Your task to perform on an android device: turn off smart reply in the gmail app Image 0: 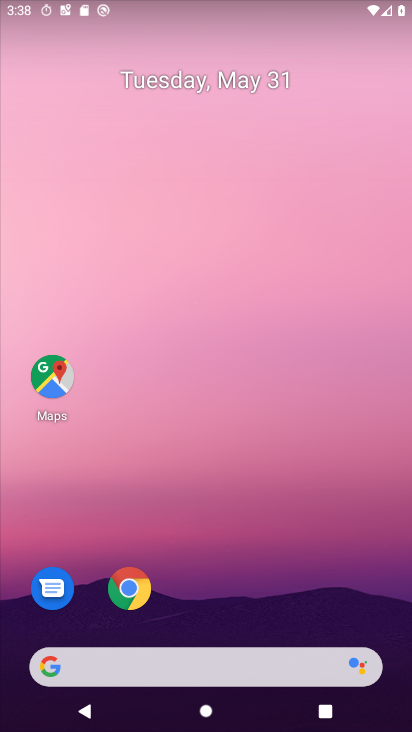
Step 0: drag from (195, 605) to (195, 172)
Your task to perform on an android device: turn off smart reply in the gmail app Image 1: 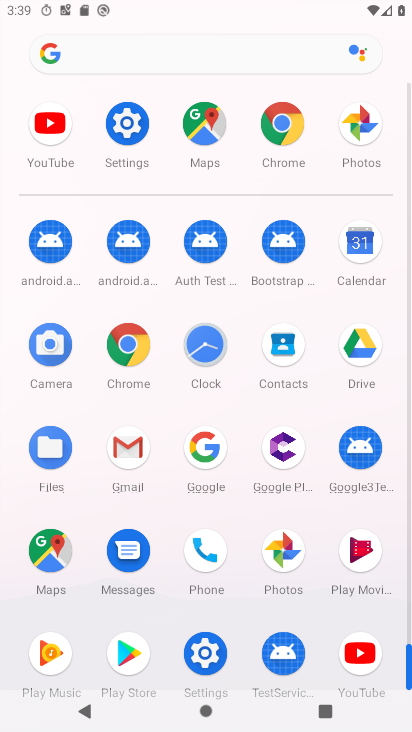
Step 1: click (136, 463)
Your task to perform on an android device: turn off smart reply in the gmail app Image 2: 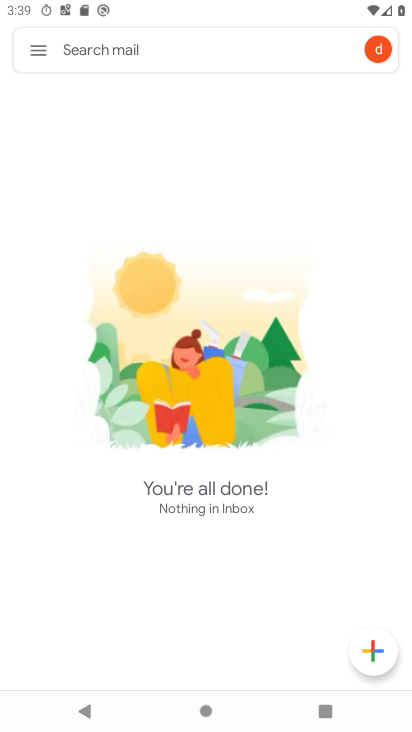
Step 2: click (45, 53)
Your task to perform on an android device: turn off smart reply in the gmail app Image 3: 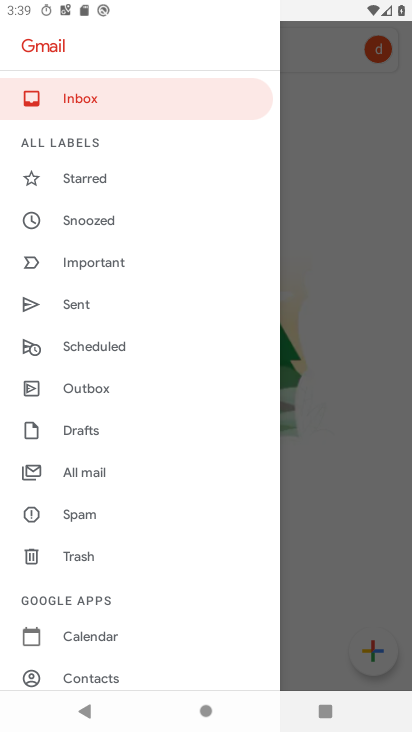
Step 3: drag from (91, 549) to (165, 231)
Your task to perform on an android device: turn off smart reply in the gmail app Image 4: 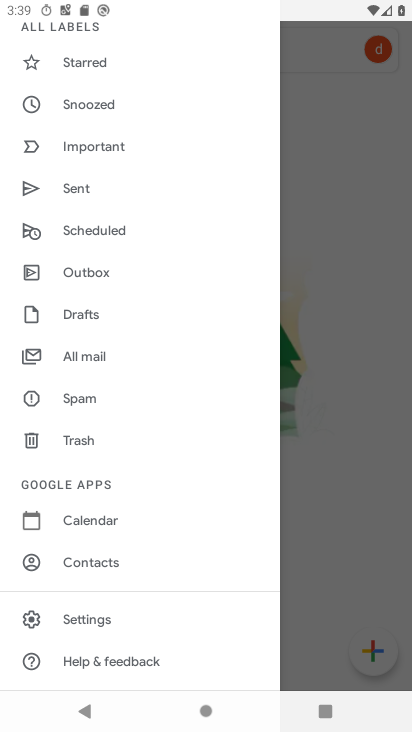
Step 4: click (84, 617)
Your task to perform on an android device: turn off smart reply in the gmail app Image 5: 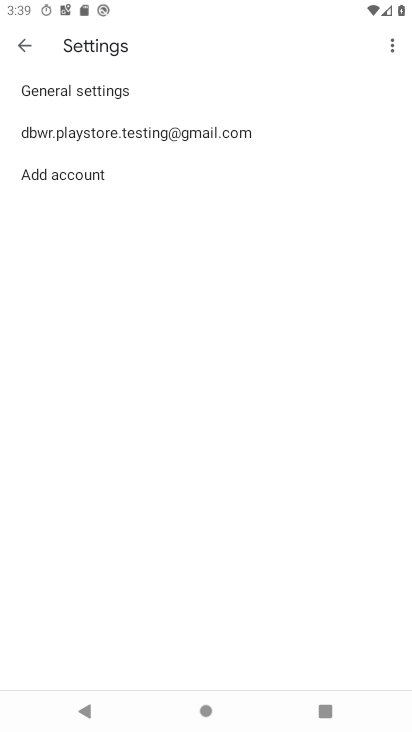
Step 5: click (127, 132)
Your task to perform on an android device: turn off smart reply in the gmail app Image 6: 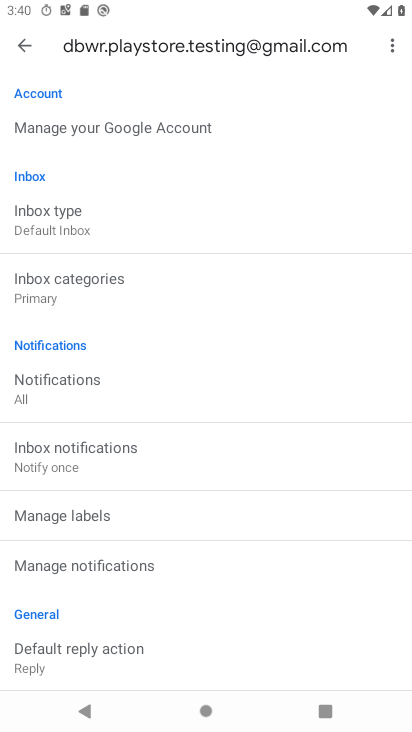
Step 6: drag from (125, 501) to (155, 203)
Your task to perform on an android device: turn off smart reply in the gmail app Image 7: 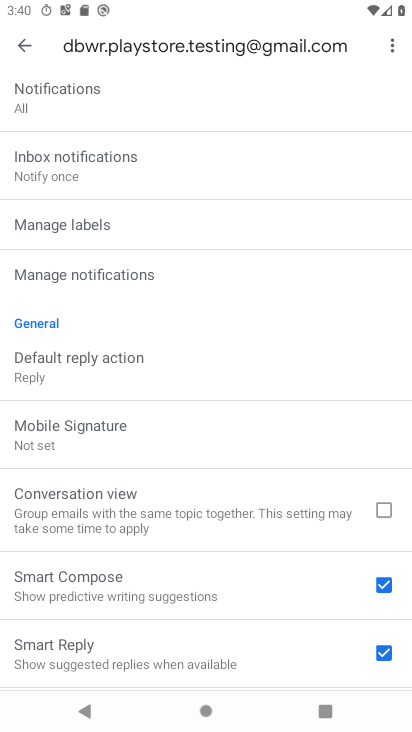
Step 7: drag from (153, 550) to (180, 361)
Your task to perform on an android device: turn off smart reply in the gmail app Image 8: 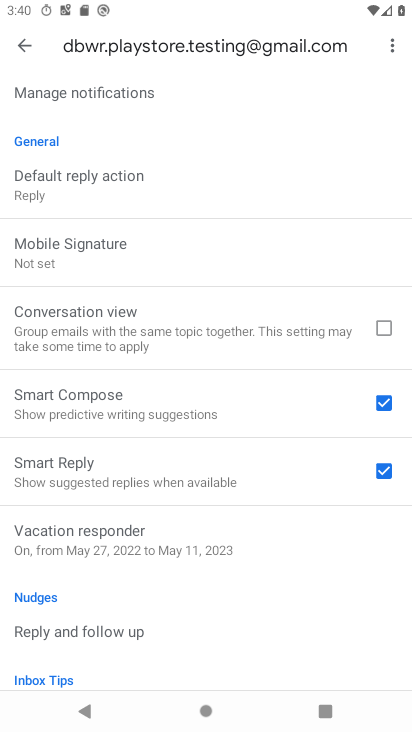
Step 8: click (387, 473)
Your task to perform on an android device: turn off smart reply in the gmail app Image 9: 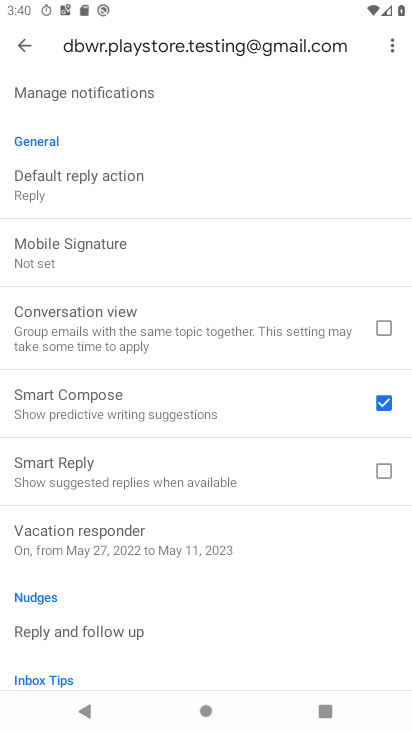
Step 9: task complete